Your task to perform on an android device: Go to location settings Image 0: 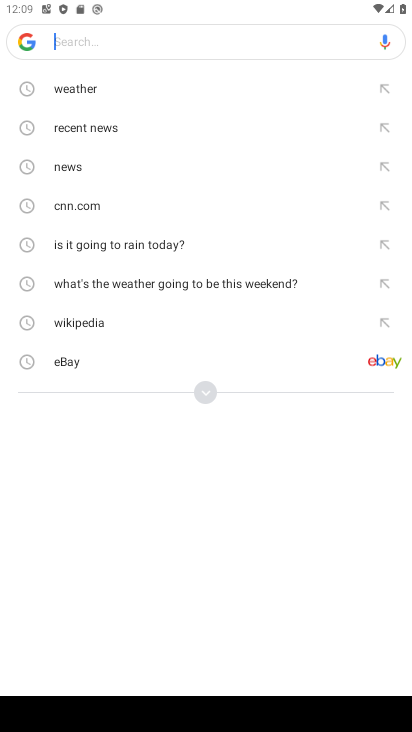
Step 0: press home button
Your task to perform on an android device: Go to location settings Image 1: 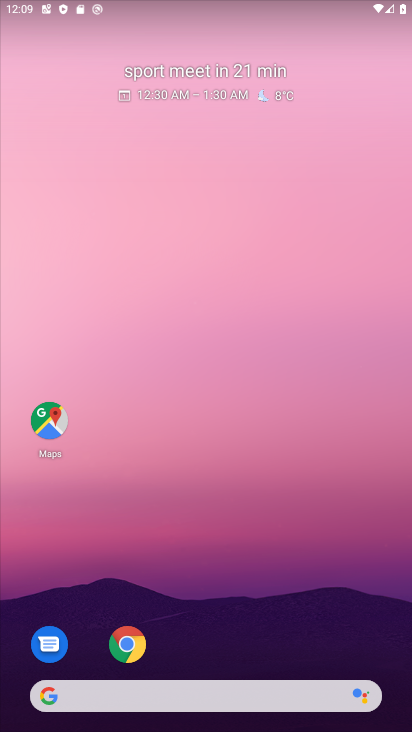
Step 1: drag from (220, 632) to (341, 133)
Your task to perform on an android device: Go to location settings Image 2: 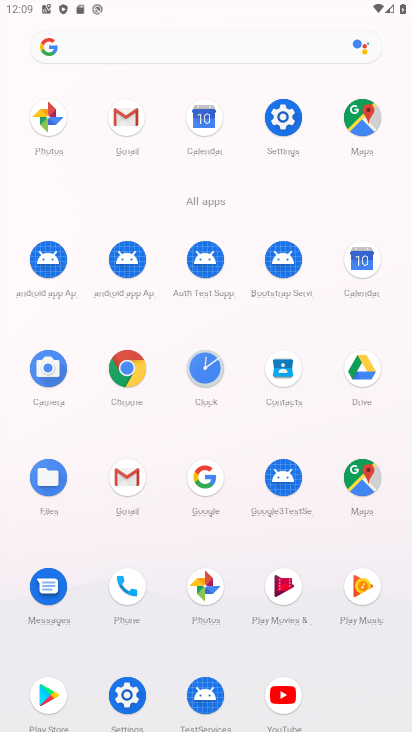
Step 2: click (279, 118)
Your task to perform on an android device: Go to location settings Image 3: 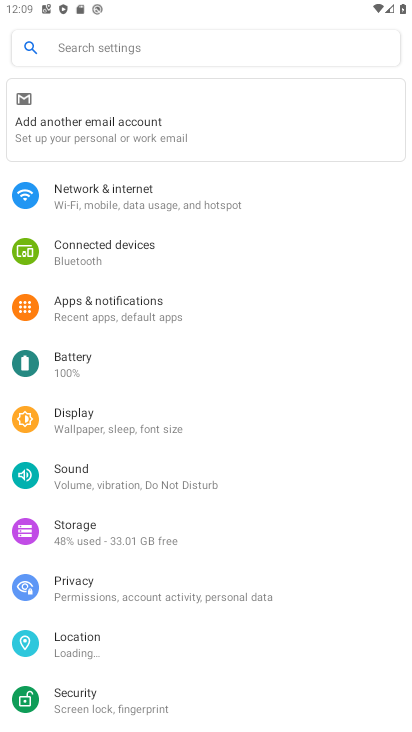
Step 3: click (88, 636)
Your task to perform on an android device: Go to location settings Image 4: 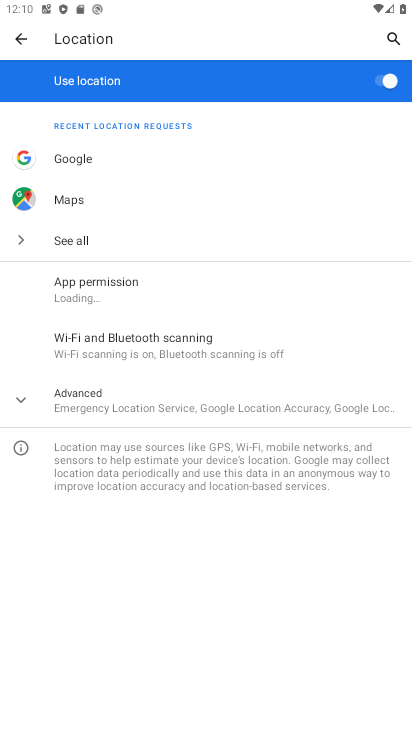
Step 4: task complete